Your task to perform on an android device: open wifi settings Image 0: 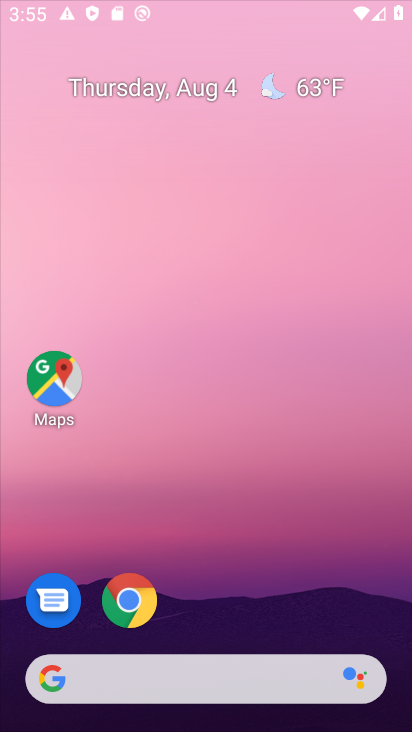
Step 0: drag from (264, 255) to (264, 124)
Your task to perform on an android device: open wifi settings Image 1: 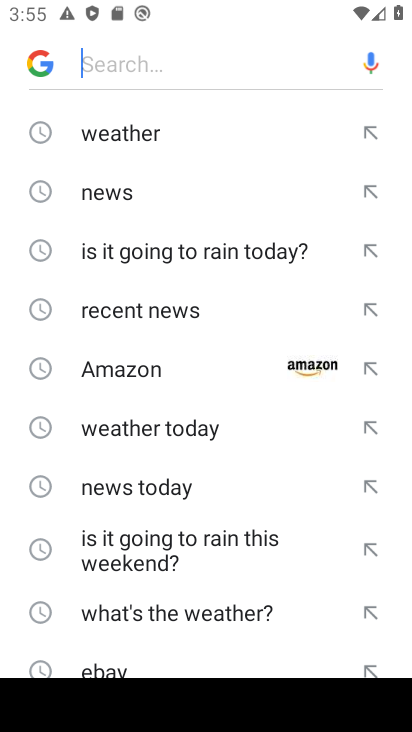
Step 1: press home button
Your task to perform on an android device: open wifi settings Image 2: 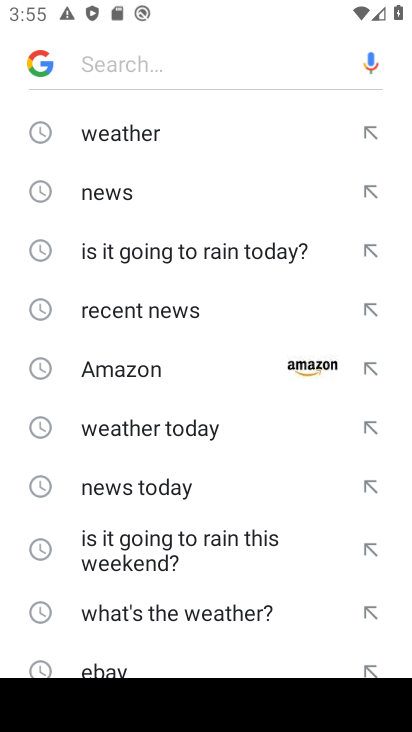
Step 2: press home button
Your task to perform on an android device: open wifi settings Image 3: 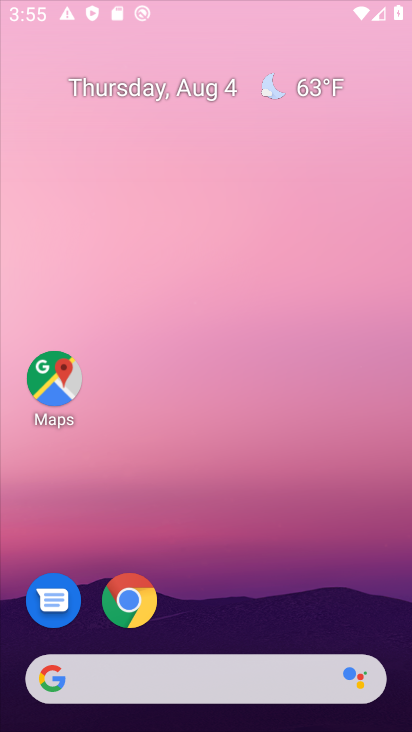
Step 3: press home button
Your task to perform on an android device: open wifi settings Image 4: 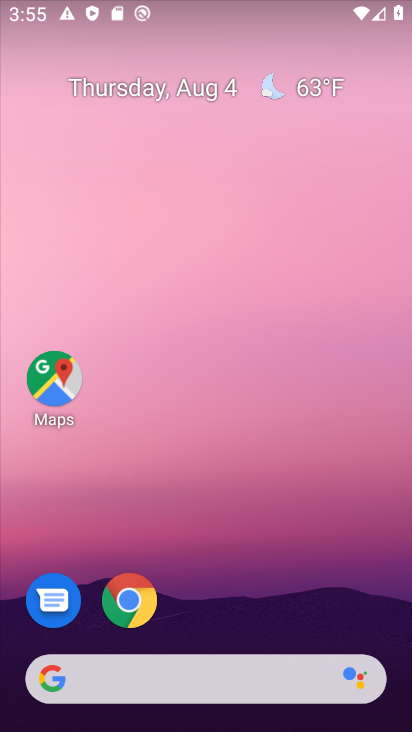
Step 4: drag from (274, 335) to (300, 27)
Your task to perform on an android device: open wifi settings Image 5: 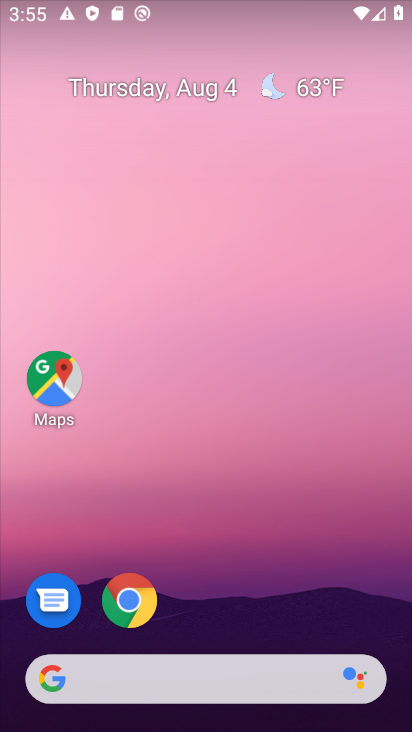
Step 5: drag from (260, 561) to (282, 38)
Your task to perform on an android device: open wifi settings Image 6: 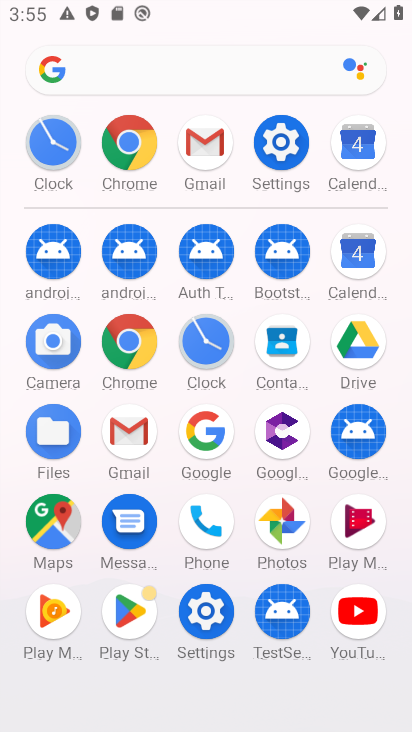
Step 6: click (279, 136)
Your task to perform on an android device: open wifi settings Image 7: 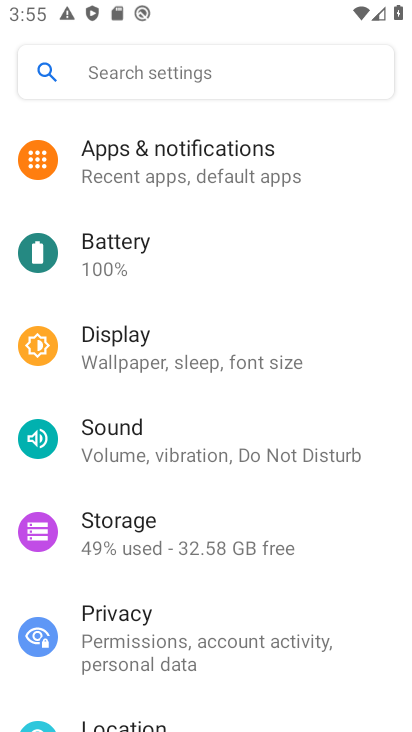
Step 7: drag from (254, 131) to (279, 597)
Your task to perform on an android device: open wifi settings Image 8: 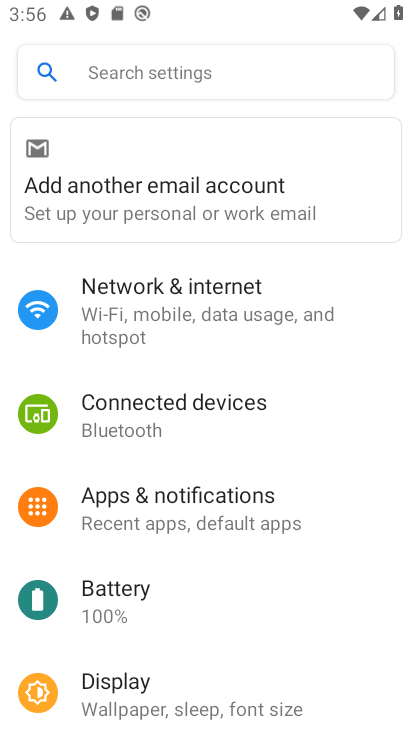
Step 8: click (161, 305)
Your task to perform on an android device: open wifi settings Image 9: 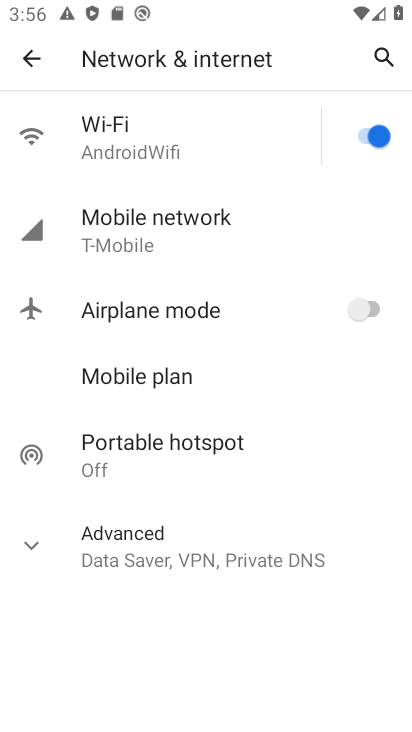
Step 9: click (211, 129)
Your task to perform on an android device: open wifi settings Image 10: 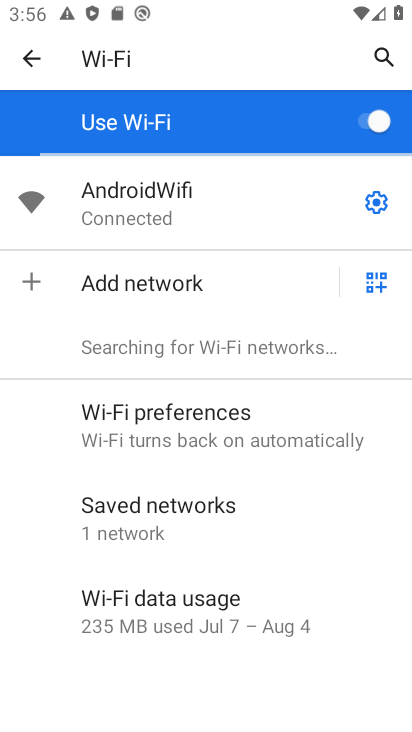
Step 10: click (389, 210)
Your task to perform on an android device: open wifi settings Image 11: 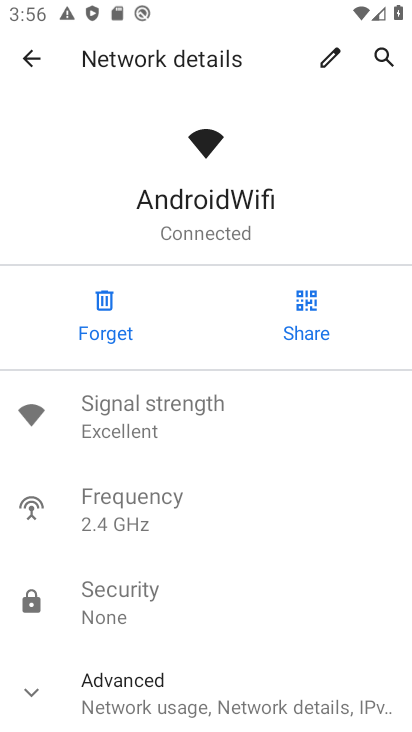
Step 11: task complete